Your task to perform on an android device: turn on data saver in the chrome app Image 0: 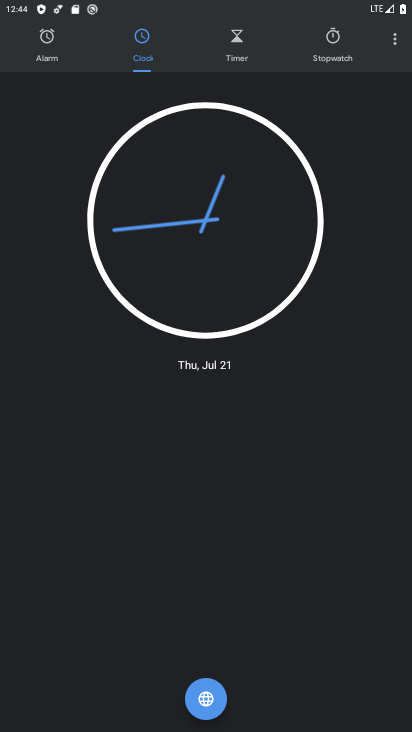
Step 0: press home button
Your task to perform on an android device: turn on data saver in the chrome app Image 1: 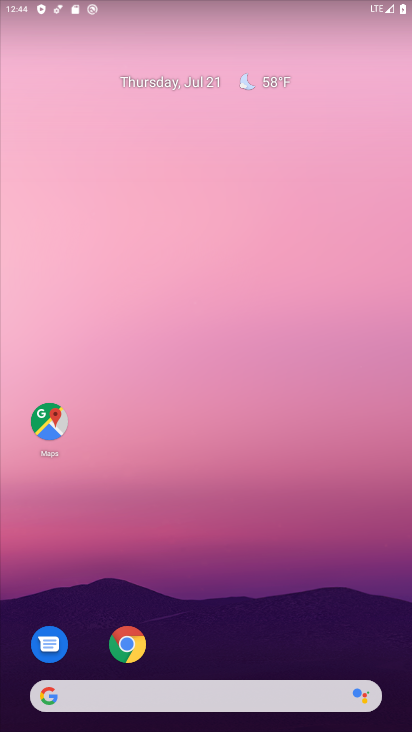
Step 1: drag from (356, 597) to (390, 119)
Your task to perform on an android device: turn on data saver in the chrome app Image 2: 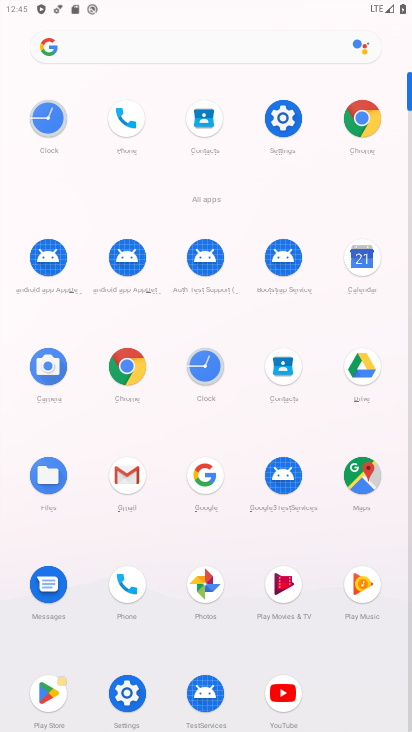
Step 2: click (369, 133)
Your task to perform on an android device: turn on data saver in the chrome app Image 3: 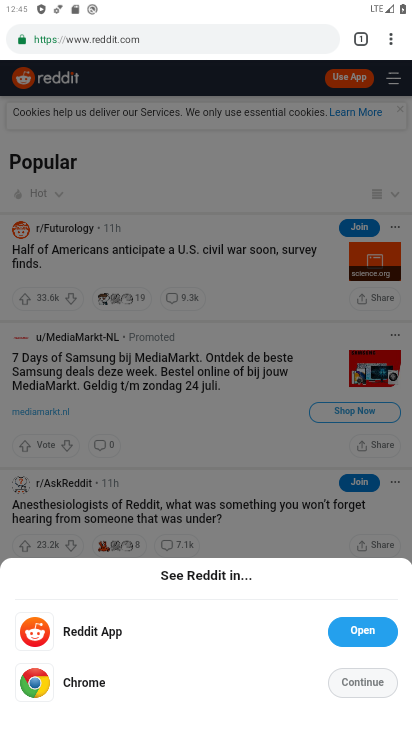
Step 3: click (386, 38)
Your task to perform on an android device: turn on data saver in the chrome app Image 4: 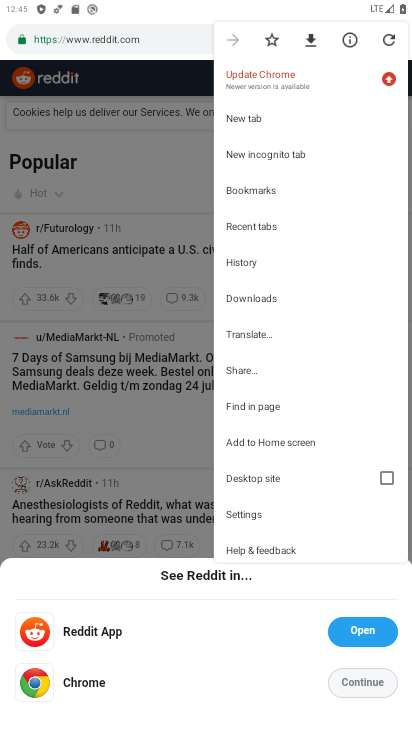
Step 4: click (301, 522)
Your task to perform on an android device: turn on data saver in the chrome app Image 5: 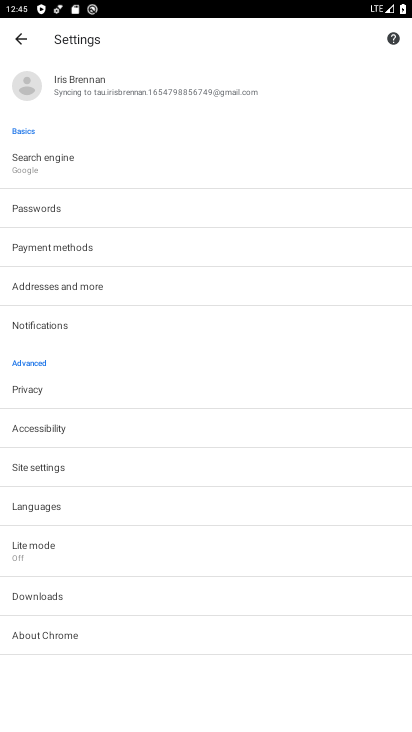
Step 5: drag from (299, 564) to (312, 346)
Your task to perform on an android device: turn on data saver in the chrome app Image 6: 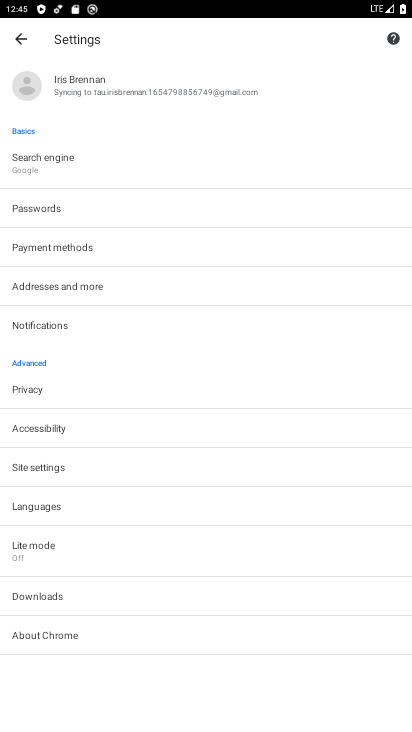
Step 6: click (207, 564)
Your task to perform on an android device: turn on data saver in the chrome app Image 7: 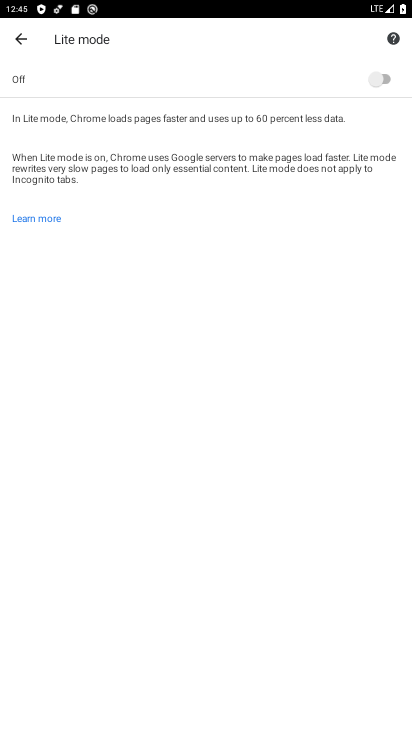
Step 7: click (374, 83)
Your task to perform on an android device: turn on data saver in the chrome app Image 8: 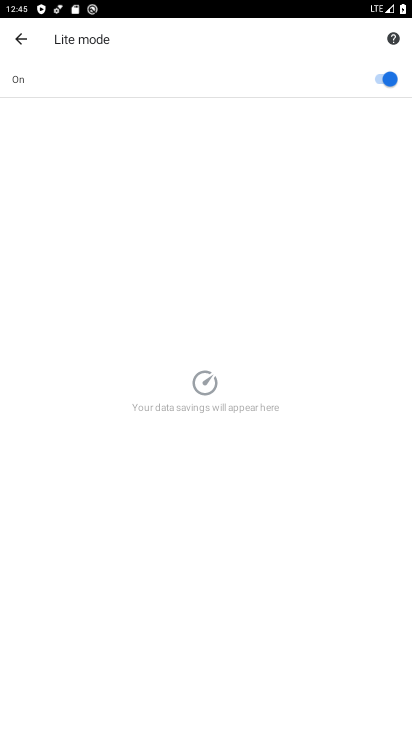
Step 8: task complete